Your task to perform on an android device: Show me the alarms in the clock app Image 0: 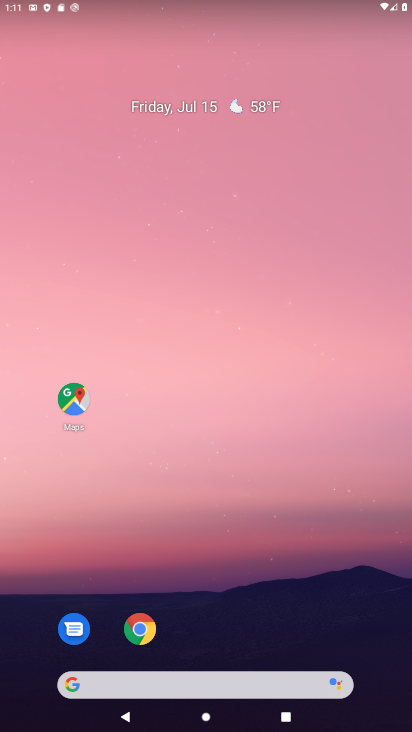
Step 0: drag from (287, 625) to (251, 105)
Your task to perform on an android device: Show me the alarms in the clock app Image 1: 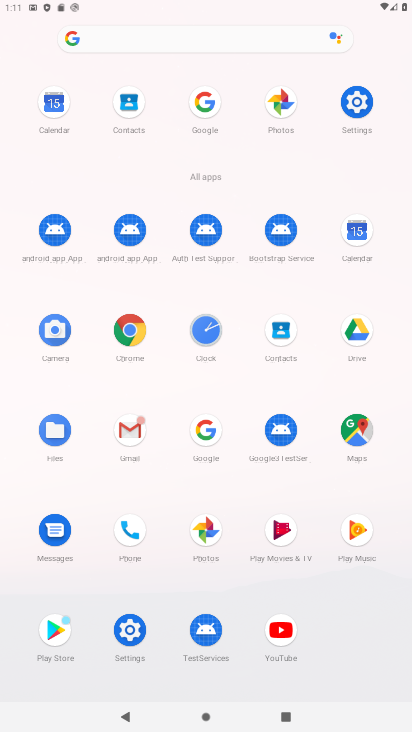
Step 1: drag from (208, 325) to (111, 209)
Your task to perform on an android device: Show me the alarms in the clock app Image 2: 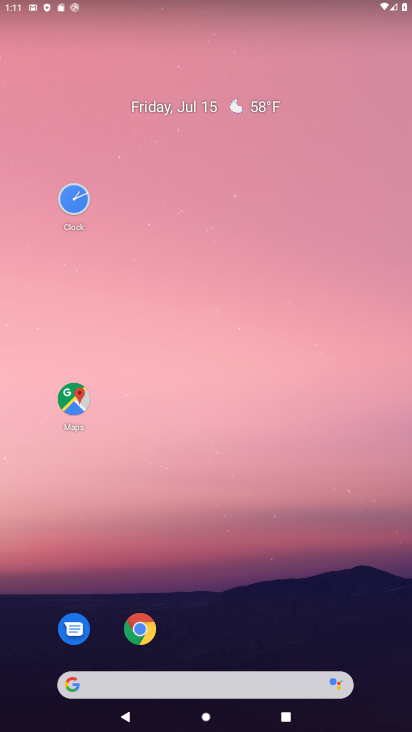
Step 2: click (69, 198)
Your task to perform on an android device: Show me the alarms in the clock app Image 3: 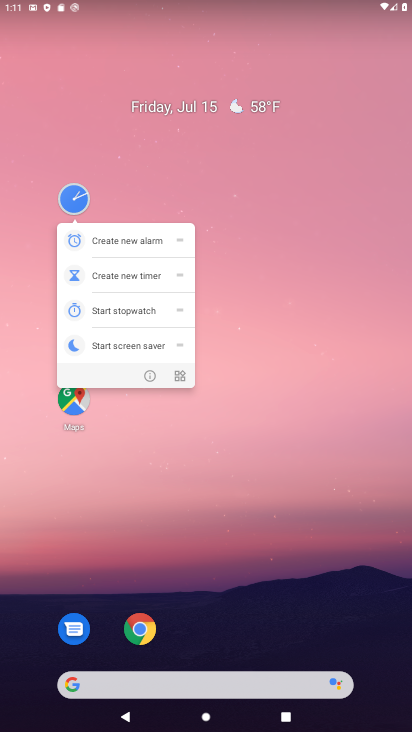
Step 3: click (65, 199)
Your task to perform on an android device: Show me the alarms in the clock app Image 4: 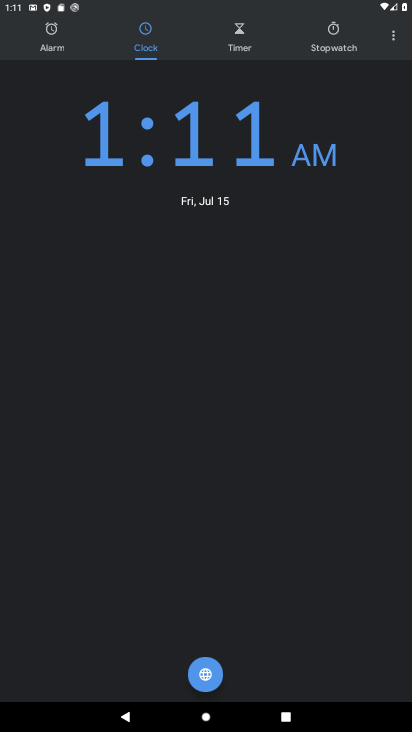
Step 4: click (62, 36)
Your task to perform on an android device: Show me the alarms in the clock app Image 5: 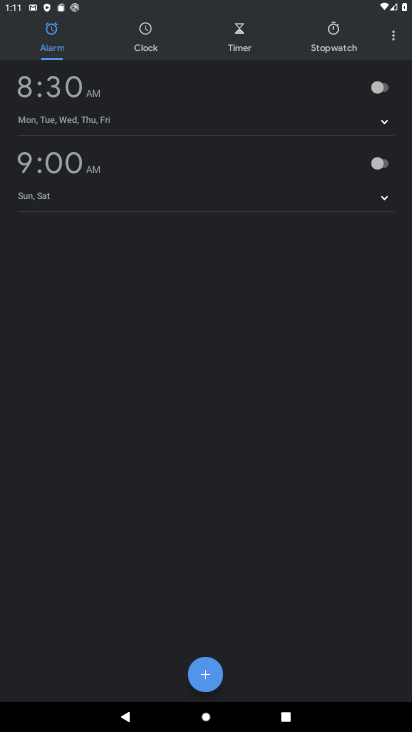
Step 5: task complete